Your task to perform on an android device: Search for sushi restaurants on Maps Image 0: 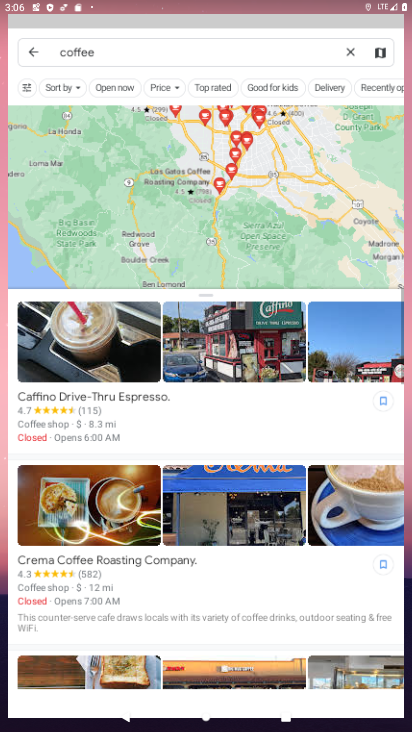
Step 0: drag from (233, 625) to (275, 133)
Your task to perform on an android device: Search for sushi restaurants on Maps Image 1: 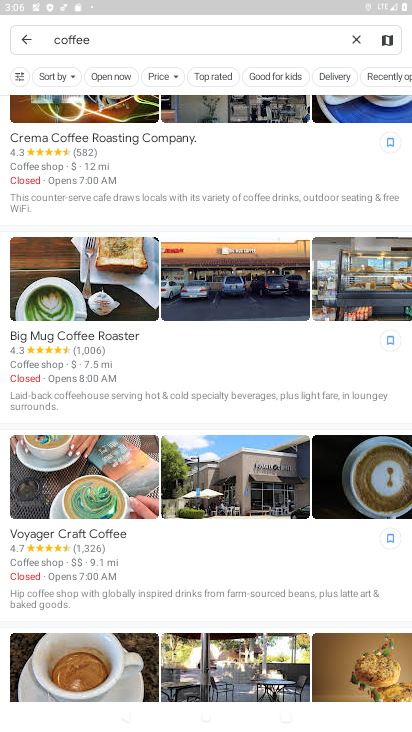
Step 1: click (349, 41)
Your task to perform on an android device: Search for sushi restaurants on Maps Image 2: 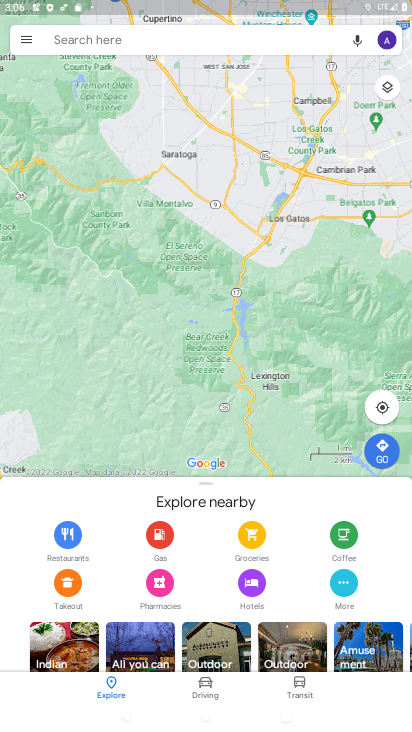
Step 2: click (132, 29)
Your task to perform on an android device: Search for sushi restaurants on Maps Image 3: 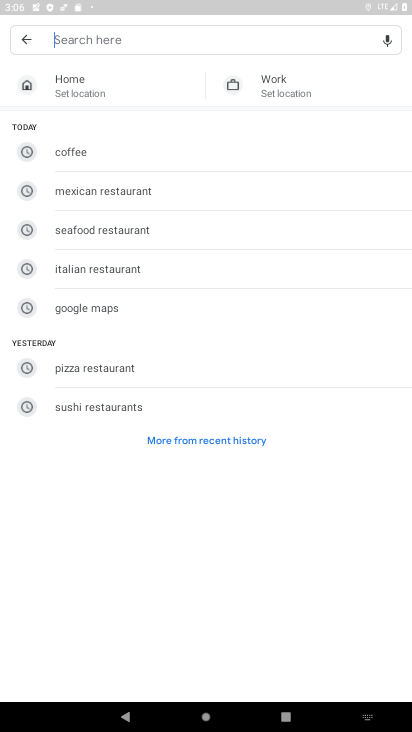
Step 3: click (59, 402)
Your task to perform on an android device: Search for sushi restaurants on Maps Image 4: 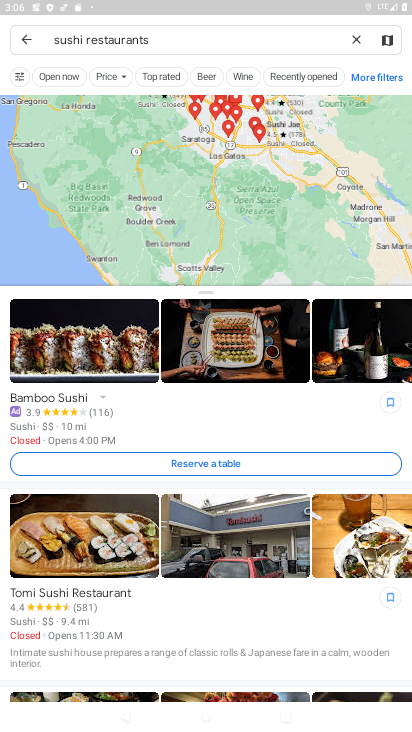
Step 4: task complete